Your task to perform on an android device: uninstall "DuckDuckGo Privacy Browser" Image 0: 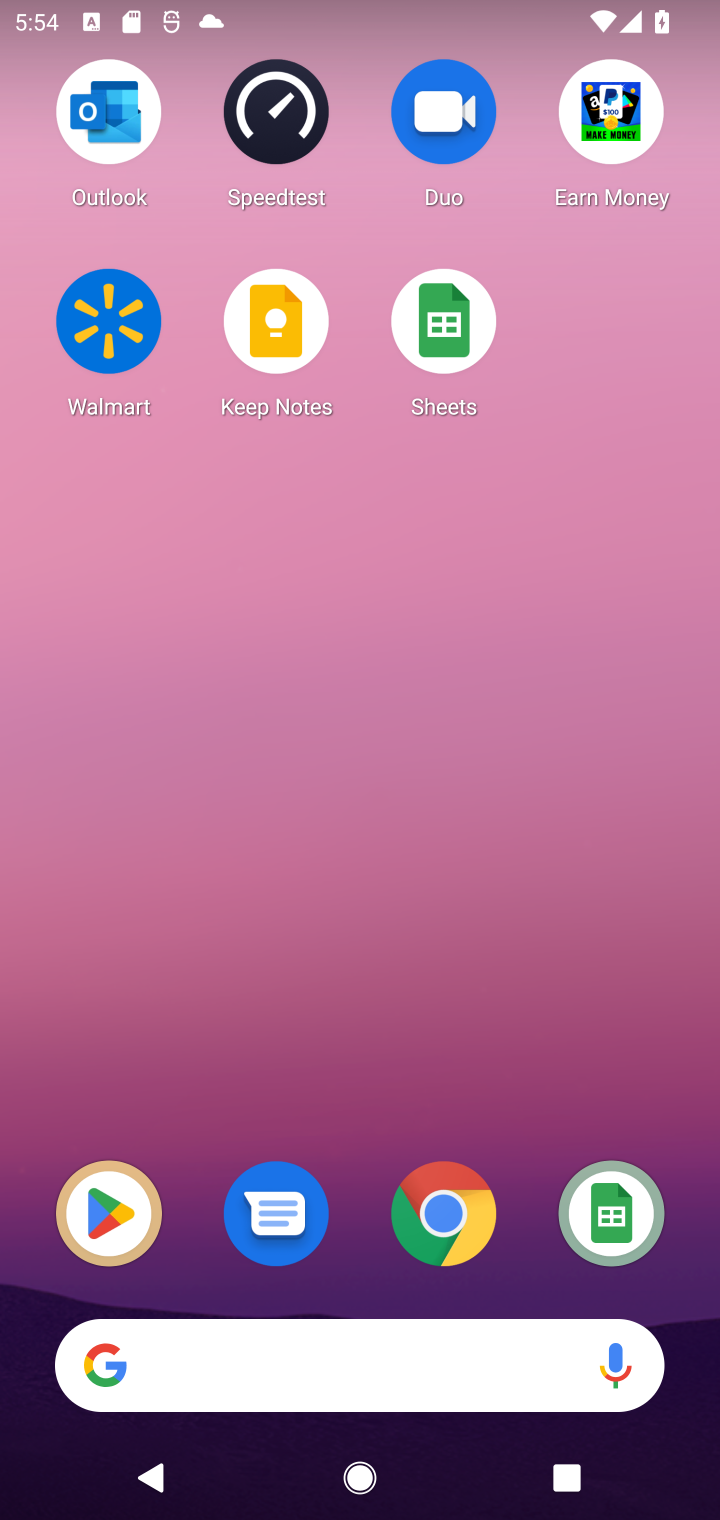
Step 0: press home button
Your task to perform on an android device: uninstall "DuckDuckGo Privacy Browser" Image 1: 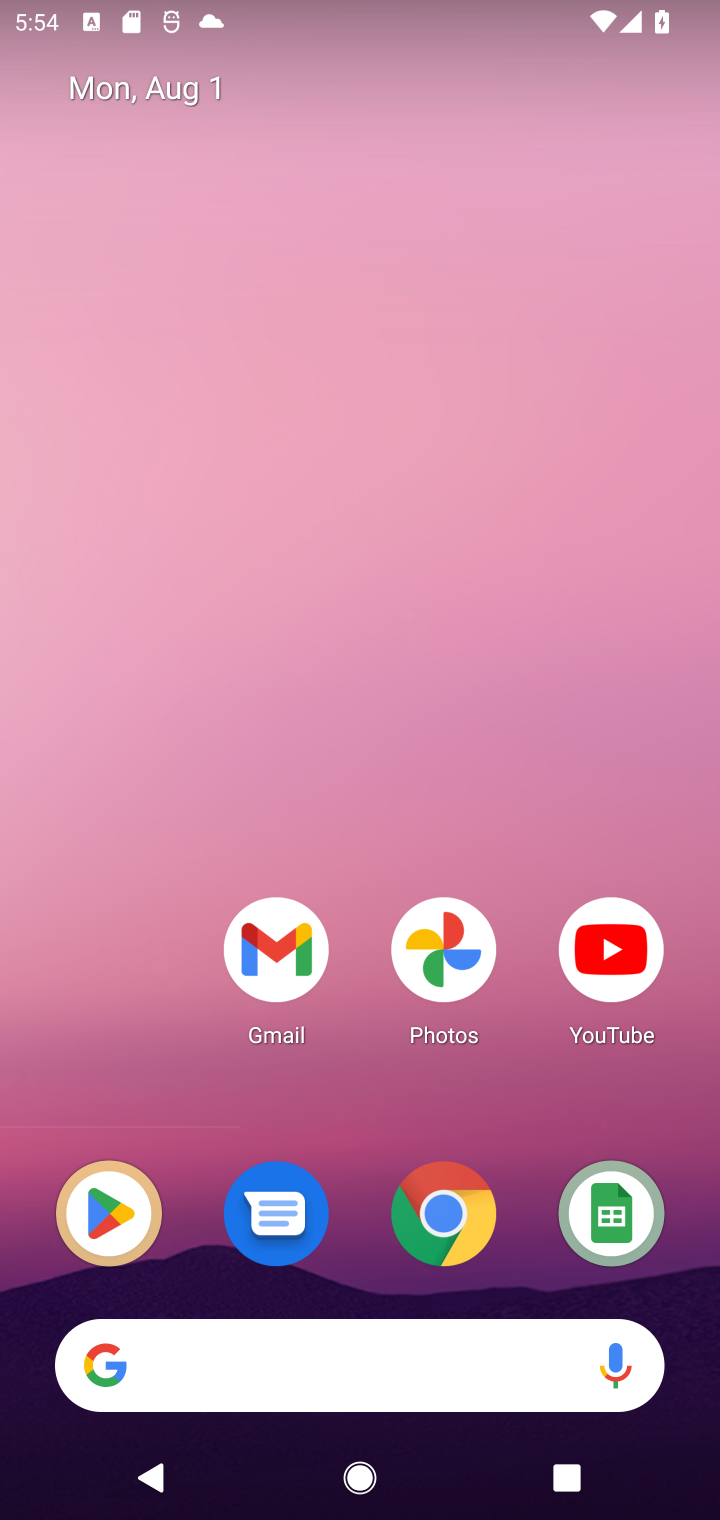
Step 1: drag from (472, 661) to (470, 16)
Your task to perform on an android device: uninstall "DuckDuckGo Privacy Browser" Image 2: 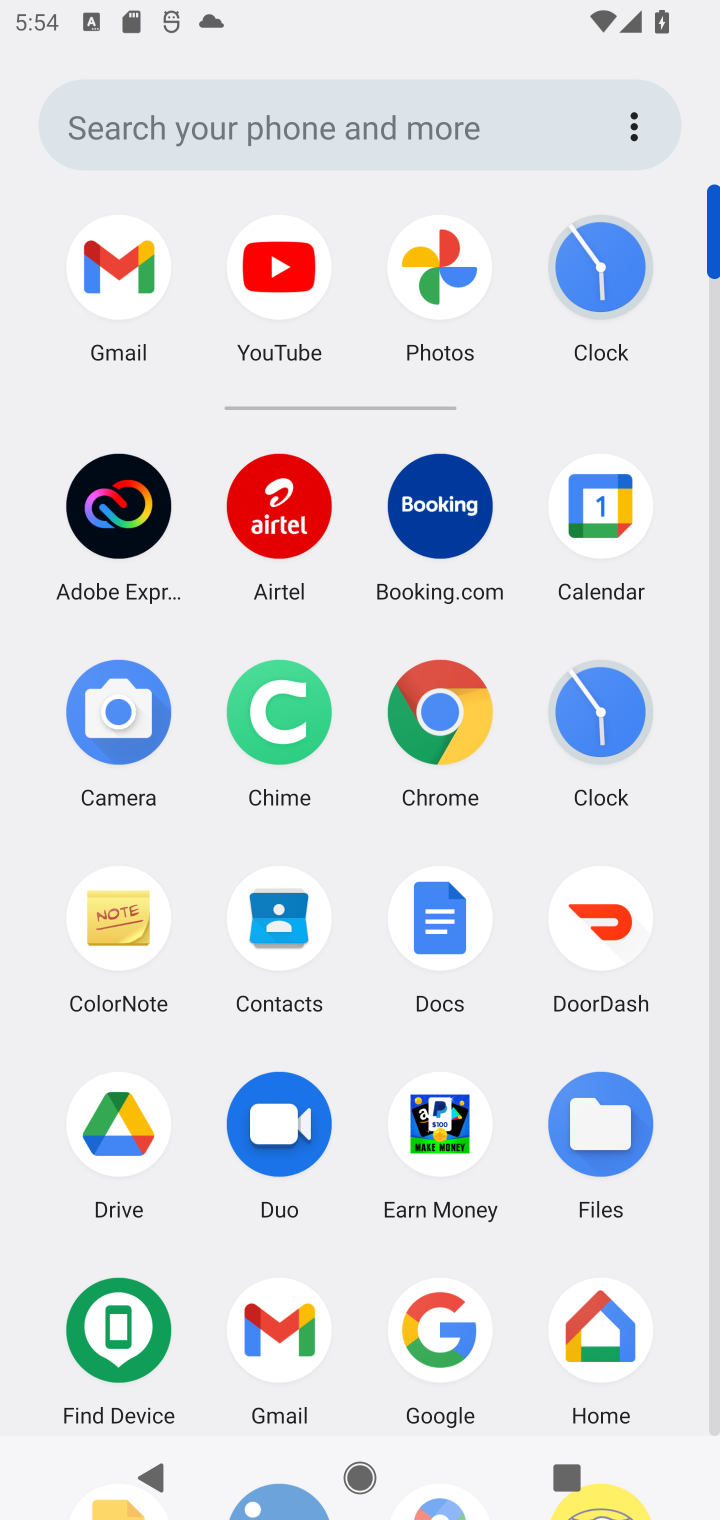
Step 2: drag from (505, 1081) to (552, 309)
Your task to perform on an android device: uninstall "DuckDuckGo Privacy Browser" Image 3: 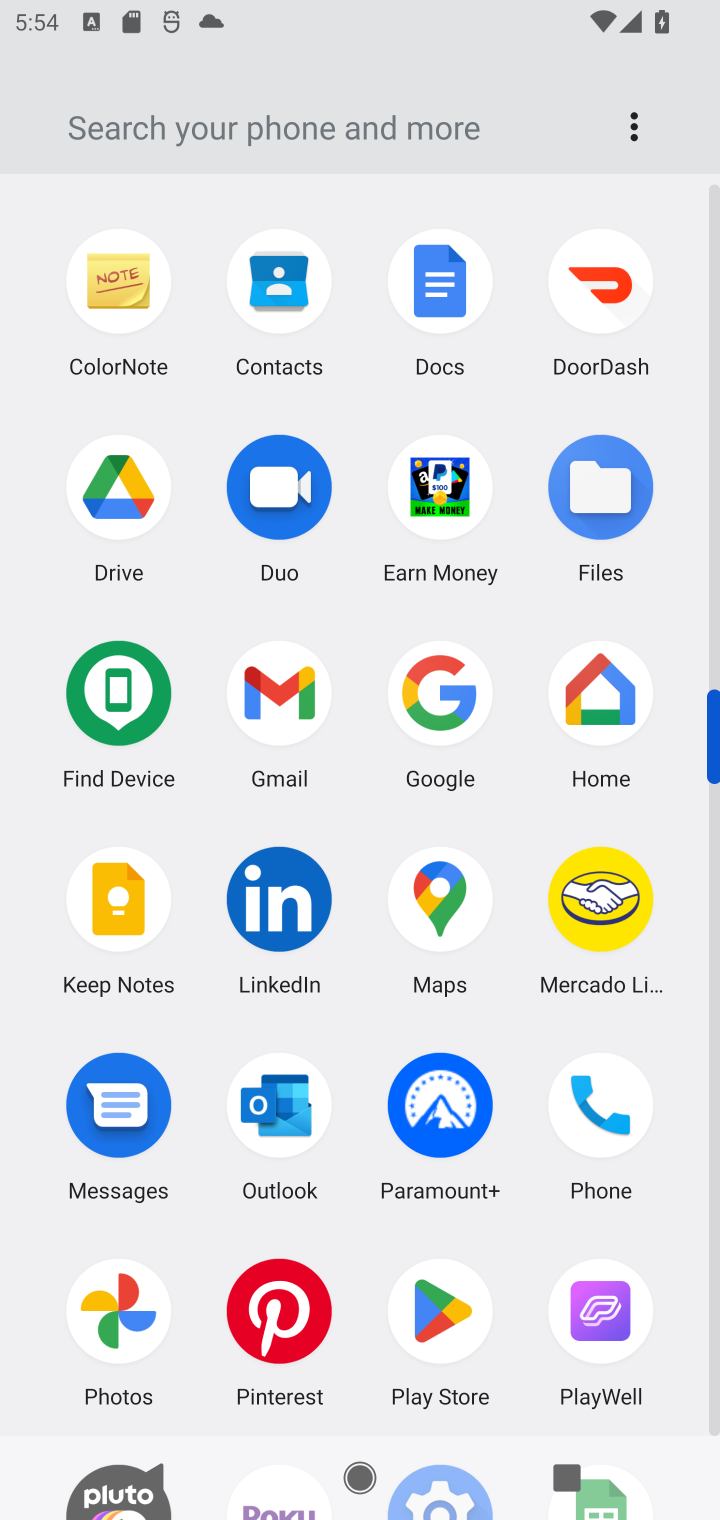
Step 3: click (448, 1300)
Your task to perform on an android device: uninstall "DuckDuckGo Privacy Browser" Image 4: 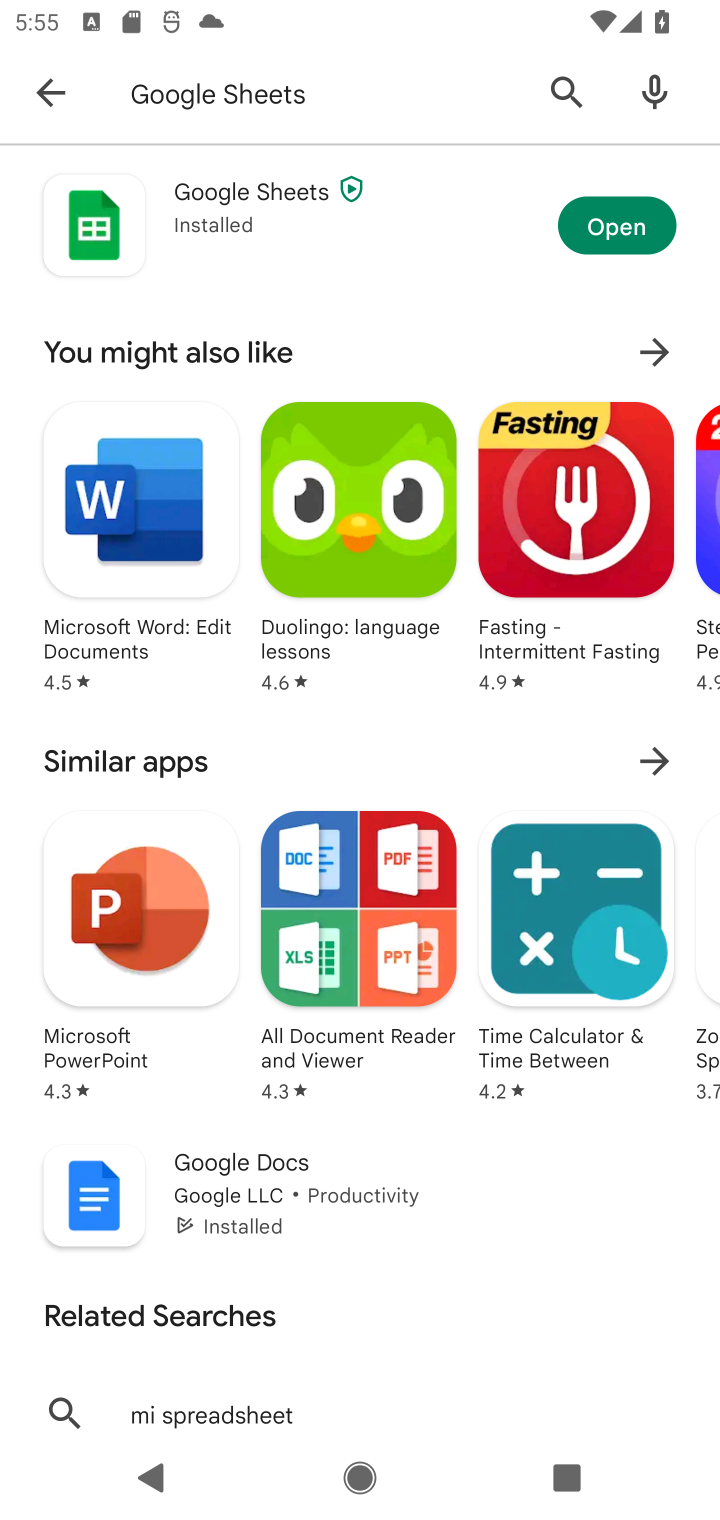
Step 4: click (451, 86)
Your task to perform on an android device: uninstall "DuckDuckGo Privacy Browser" Image 5: 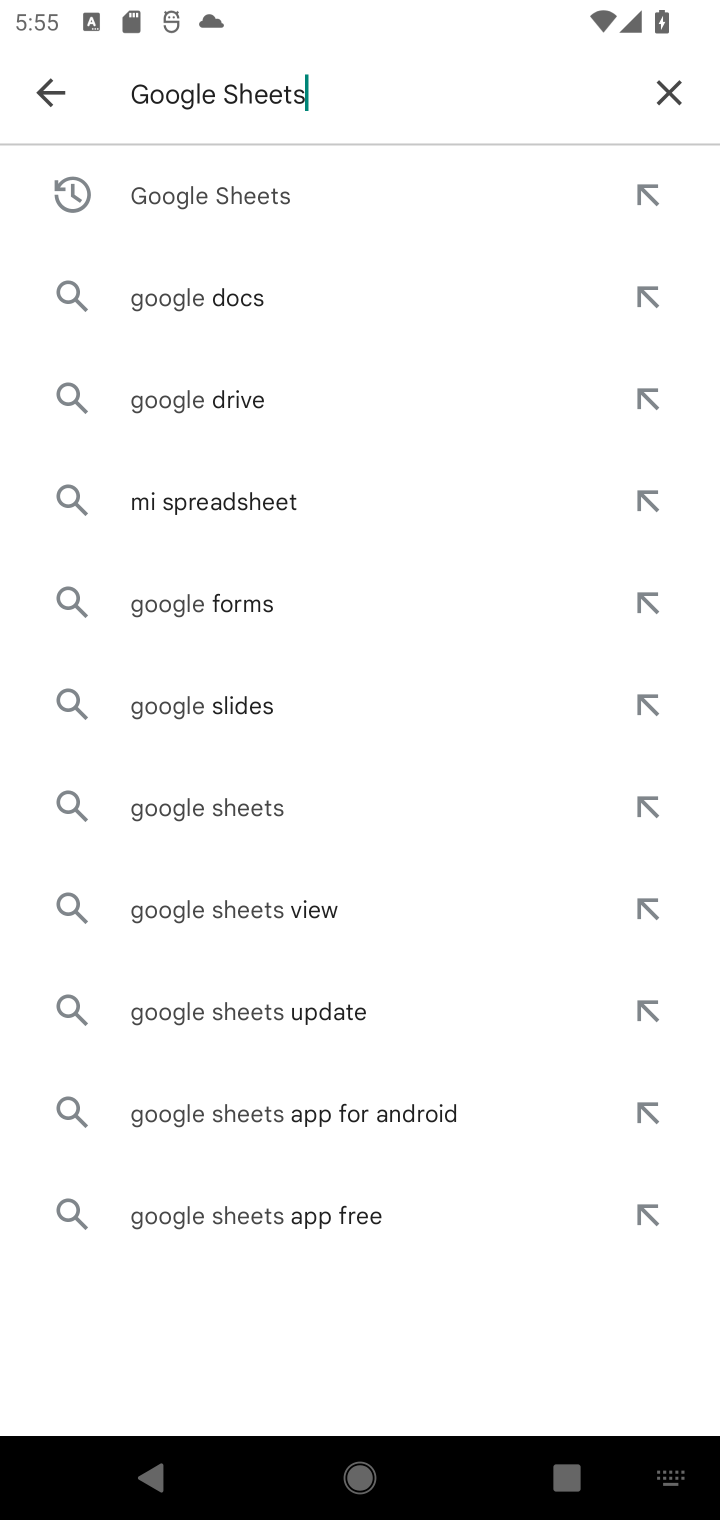
Step 5: click (675, 83)
Your task to perform on an android device: uninstall "DuckDuckGo Privacy Browser" Image 6: 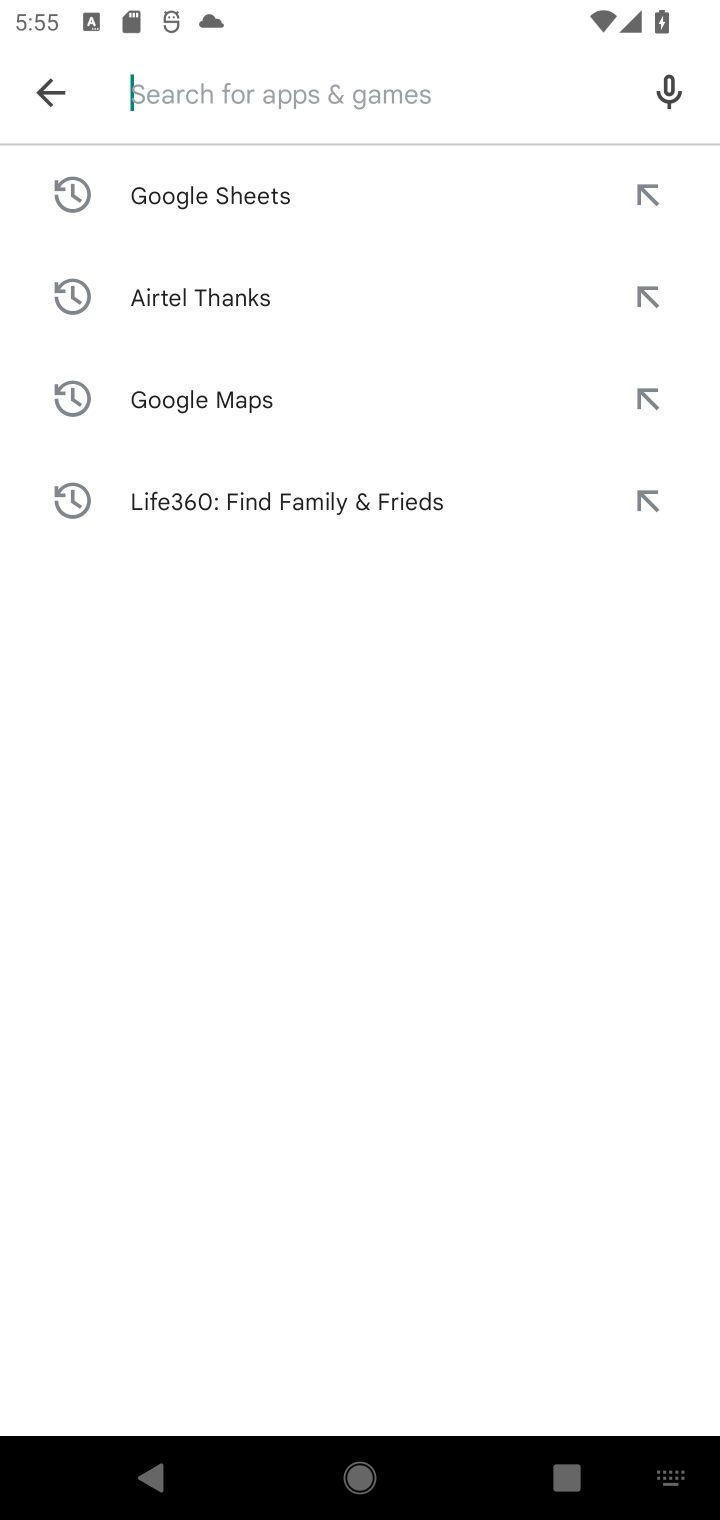
Step 6: type ""
Your task to perform on an android device: uninstall "DuckDuckGo Privacy Browser" Image 7: 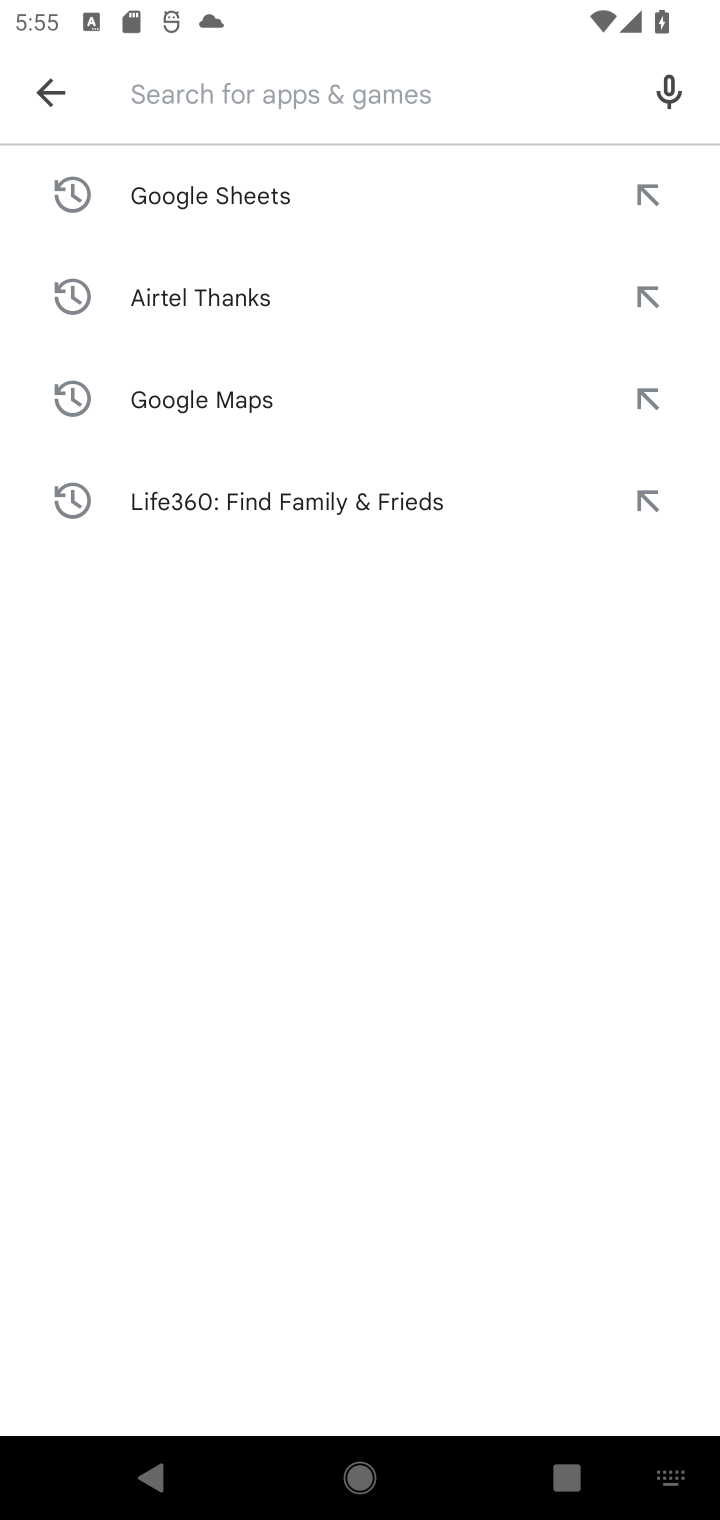
Step 7: type "DuckDuckGo Privacy Browser"
Your task to perform on an android device: uninstall "DuckDuckGo Privacy Browser" Image 8: 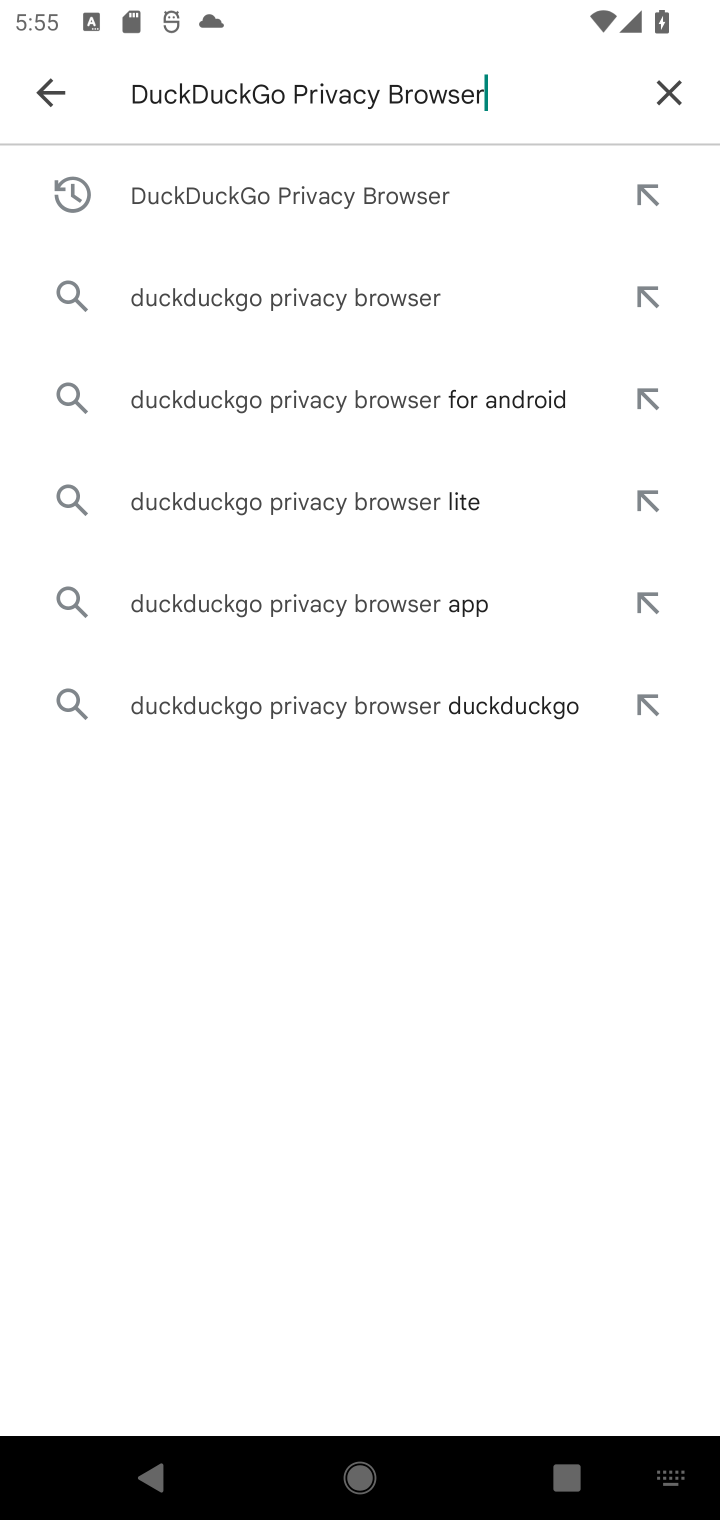
Step 8: press enter
Your task to perform on an android device: uninstall "DuckDuckGo Privacy Browser" Image 9: 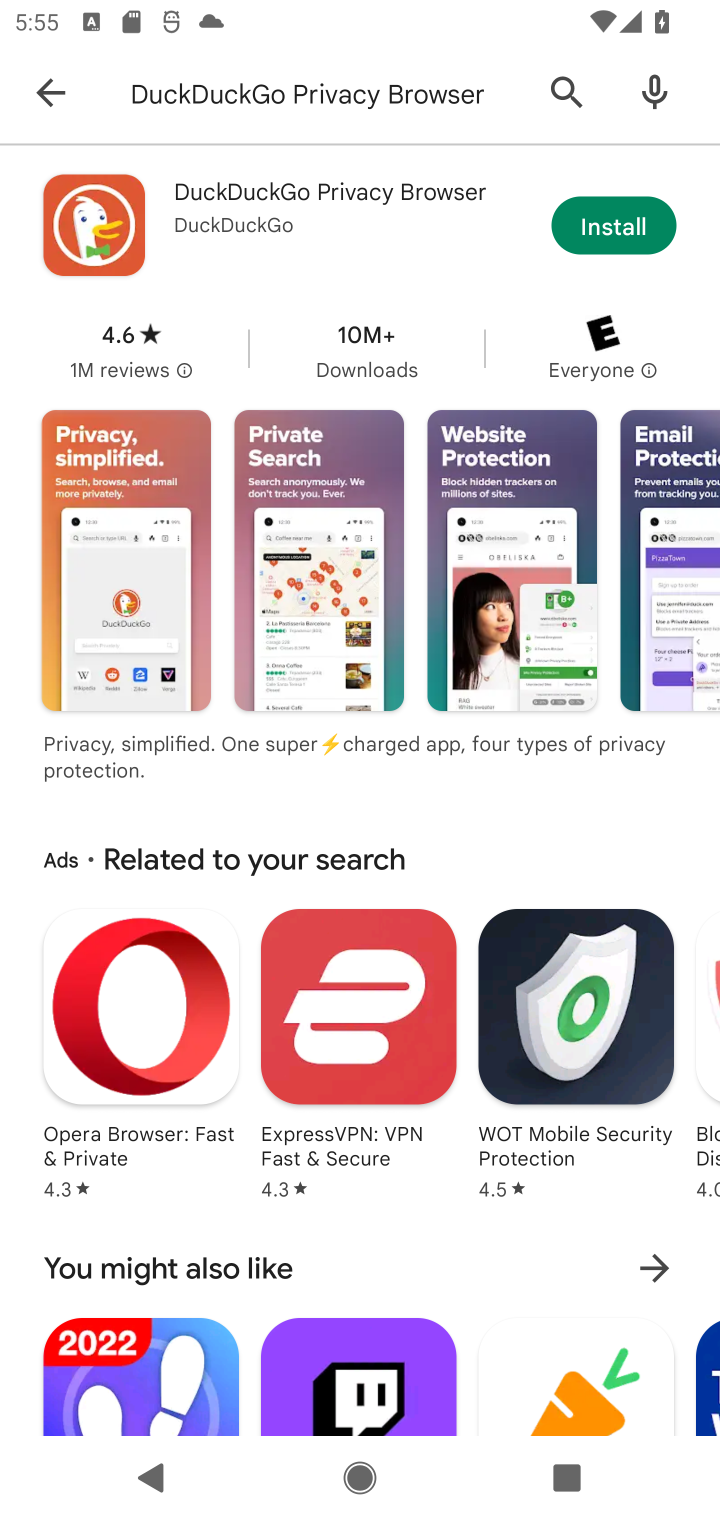
Step 9: click (393, 228)
Your task to perform on an android device: uninstall "DuckDuckGo Privacy Browser" Image 10: 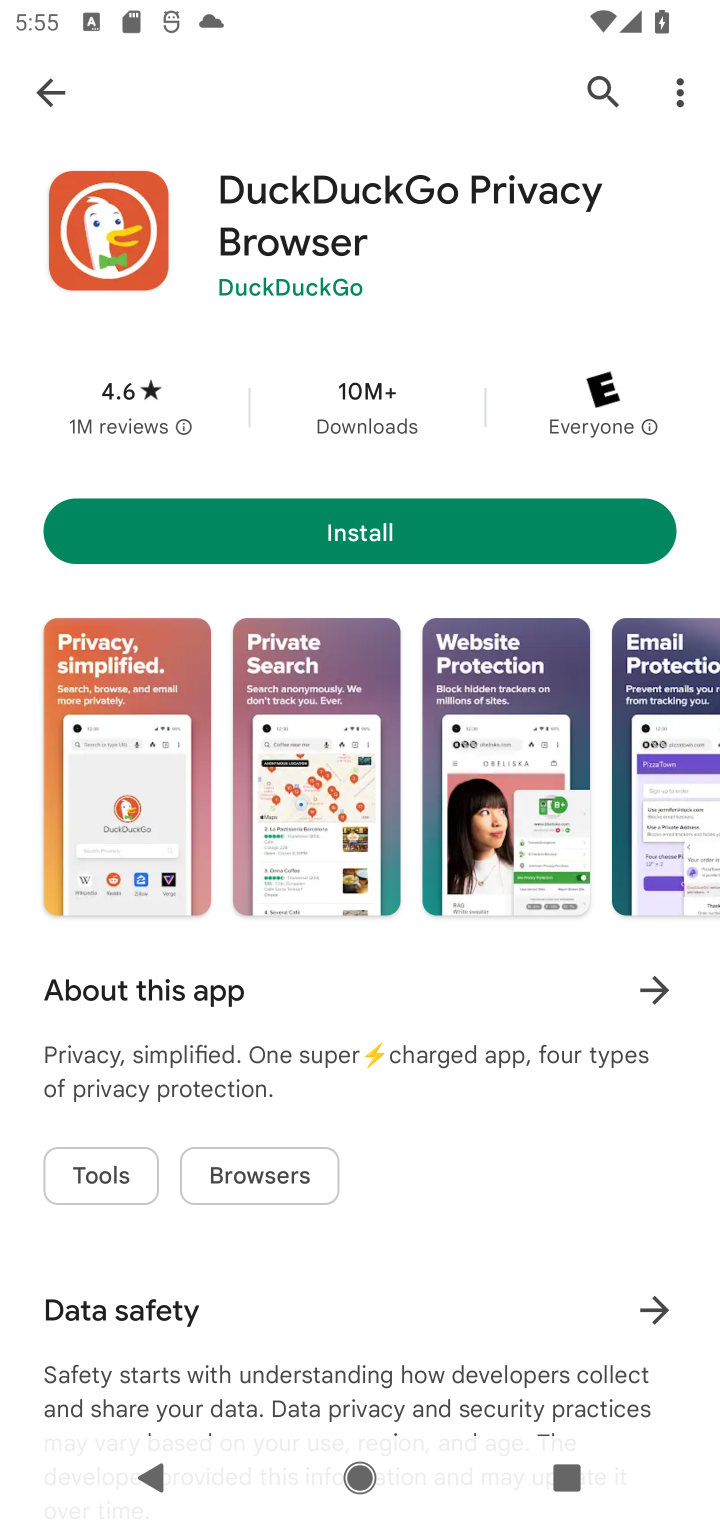
Step 10: task complete